Your task to perform on an android device: add a contact Image 0: 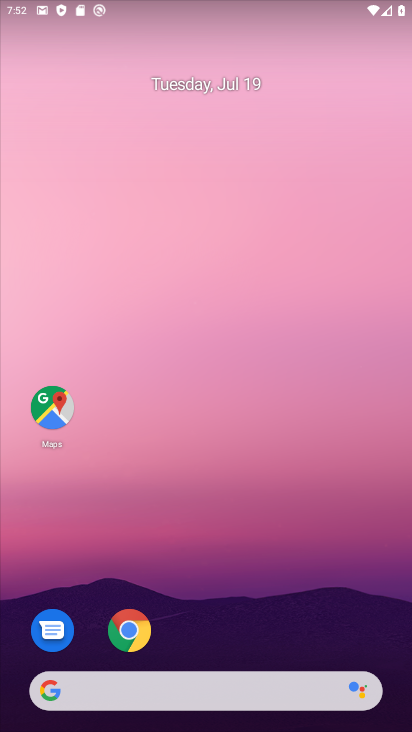
Step 0: drag from (177, 582) to (129, 67)
Your task to perform on an android device: add a contact Image 1: 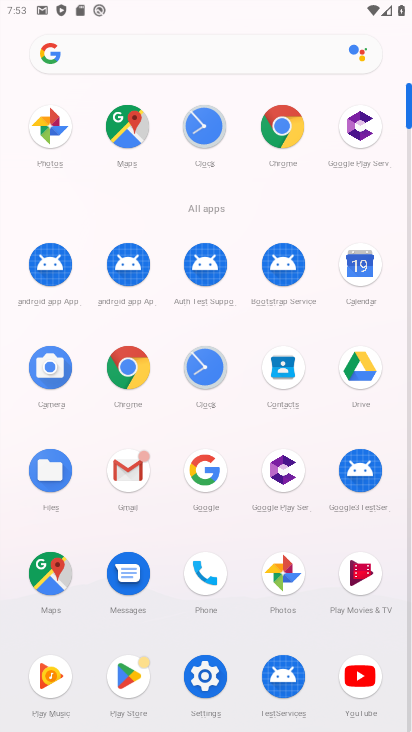
Step 1: click (281, 378)
Your task to perform on an android device: add a contact Image 2: 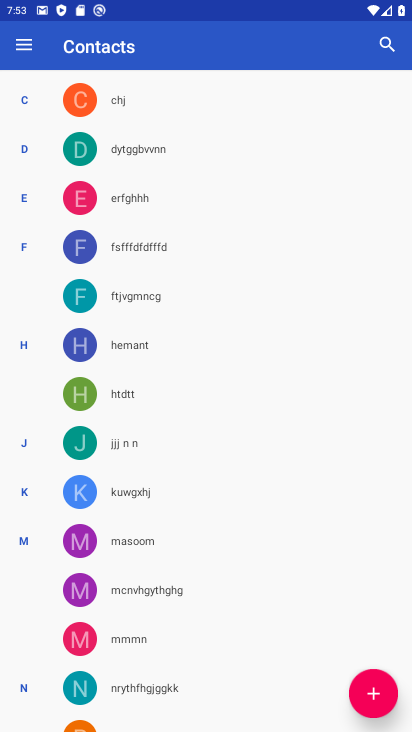
Step 2: click (376, 698)
Your task to perform on an android device: add a contact Image 3: 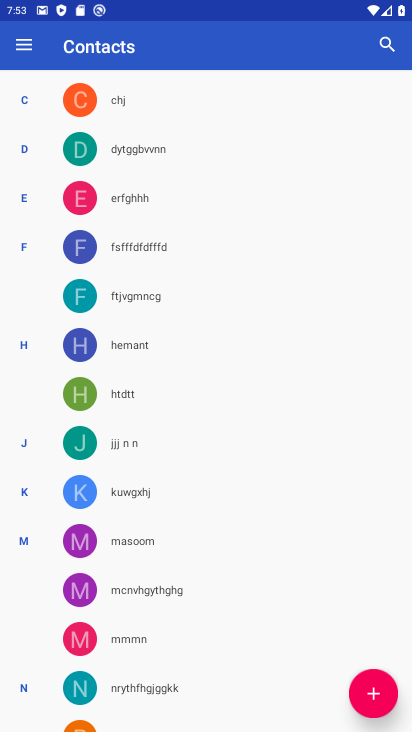
Step 3: click (376, 698)
Your task to perform on an android device: add a contact Image 4: 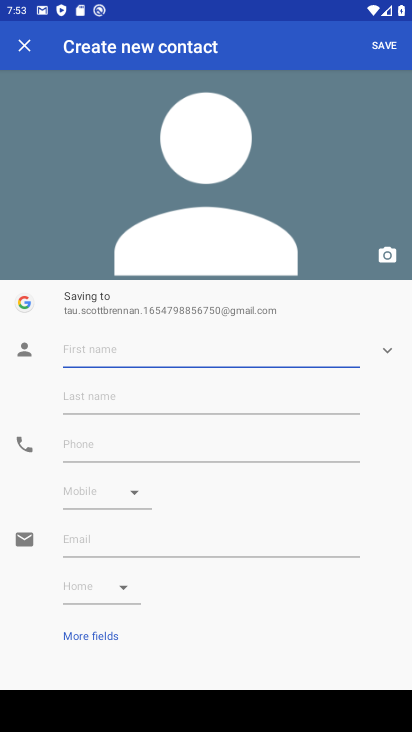
Step 4: type "Namisha"
Your task to perform on an android device: add a contact Image 5: 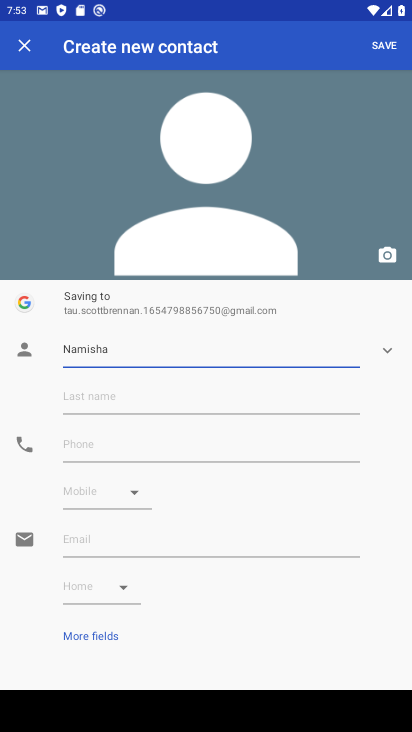
Step 5: click (107, 451)
Your task to perform on an android device: add a contact Image 6: 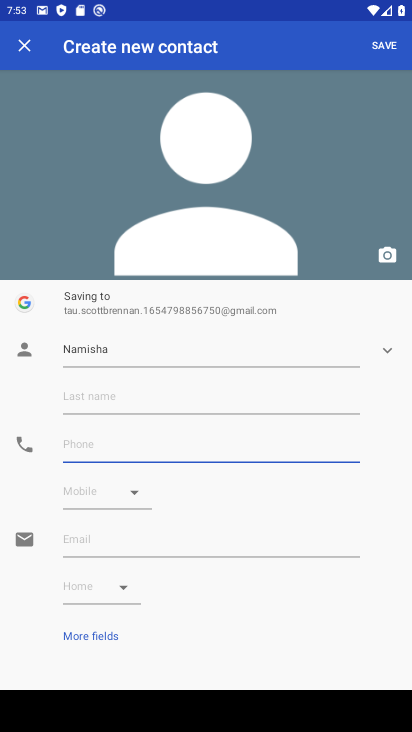
Step 6: type "6567689000"
Your task to perform on an android device: add a contact Image 7: 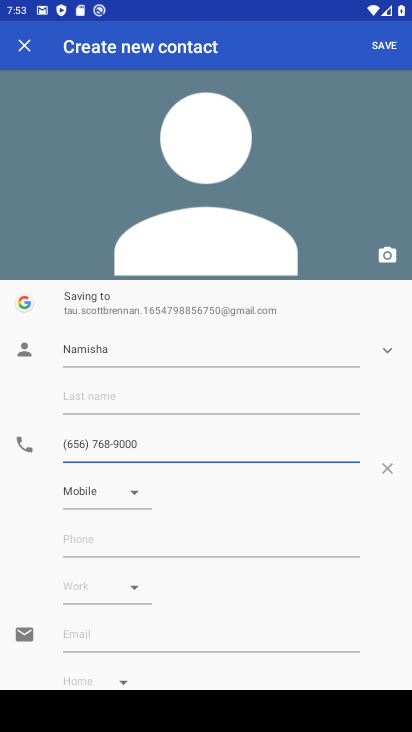
Step 7: click (390, 49)
Your task to perform on an android device: add a contact Image 8: 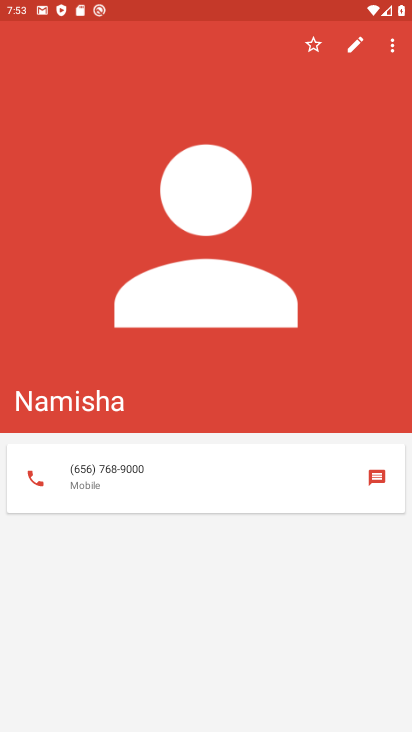
Step 8: task complete